Your task to perform on an android device: Show the shopping cart on costco. Add "bose soundsport free" to the cart on costco Image 0: 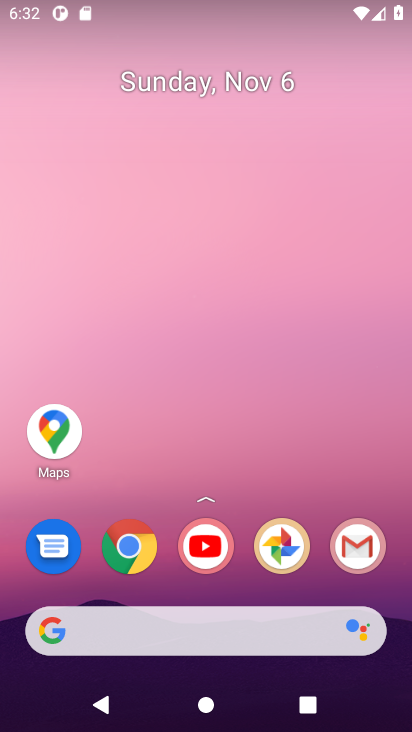
Step 0: click (140, 553)
Your task to perform on an android device: Show the shopping cart on costco. Add "bose soundsport free" to the cart on costco Image 1: 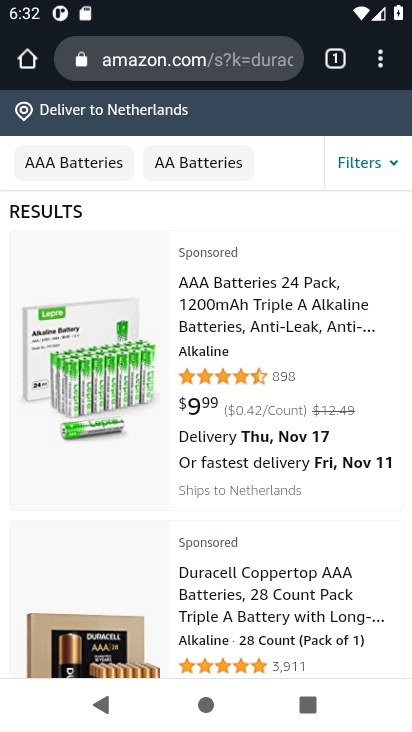
Step 1: click (167, 59)
Your task to perform on an android device: Show the shopping cart on costco. Add "bose soundsport free" to the cart on costco Image 2: 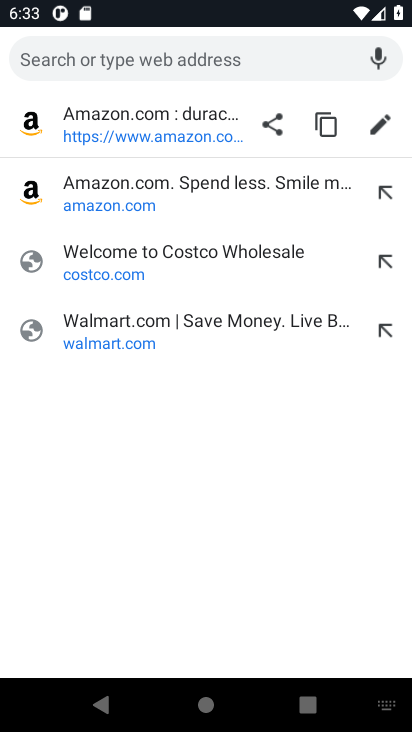
Step 2: click (97, 277)
Your task to perform on an android device: Show the shopping cart on costco. Add "bose soundsport free" to the cart on costco Image 3: 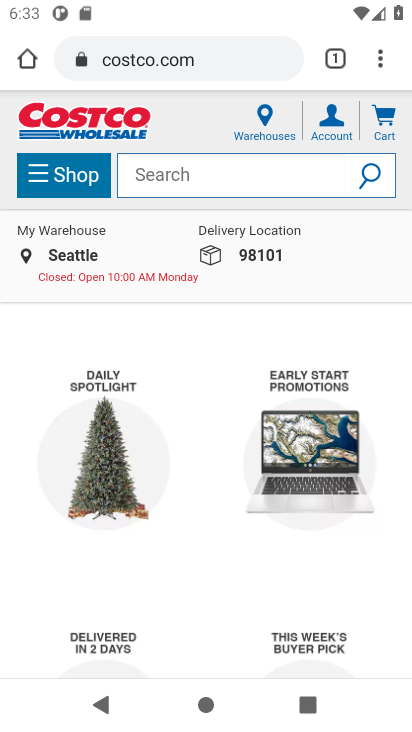
Step 3: click (384, 123)
Your task to perform on an android device: Show the shopping cart on costco. Add "bose soundsport free" to the cart on costco Image 4: 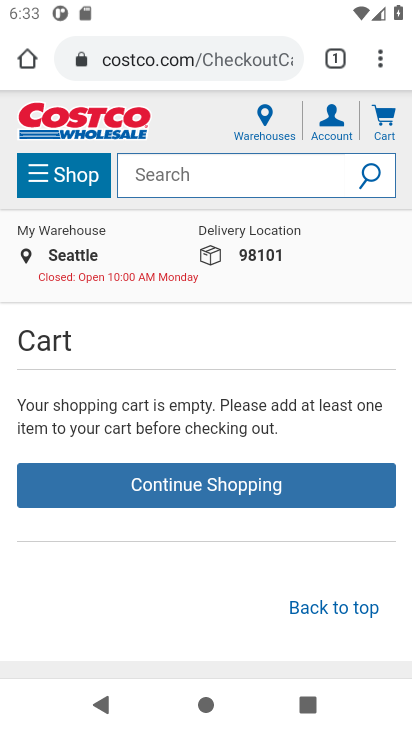
Step 4: click (158, 176)
Your task to perform on an android device: Show the shopping cart on costco. Add "bose soundsport free" to the cart on costco Image 5: 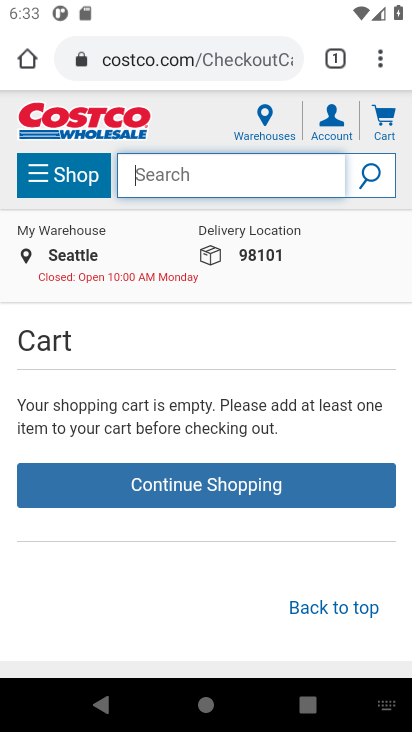
Step 5: type "bose soundsport free"
Your task to perform on an android device: Show the shopping cart on costco. Add "bose soundsport free" to the cart on costco Image 6: 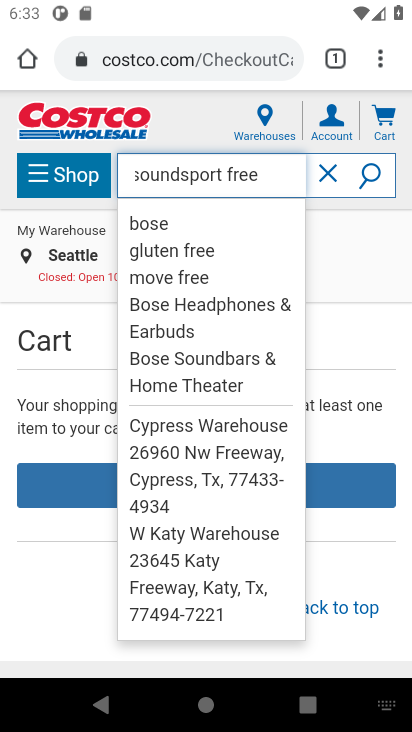
Step 6: click (371, 184)
Your task to perform on an android device: Show the shopping cart on costco. Add "bose soundsport free" to the cart on costco Image 7: 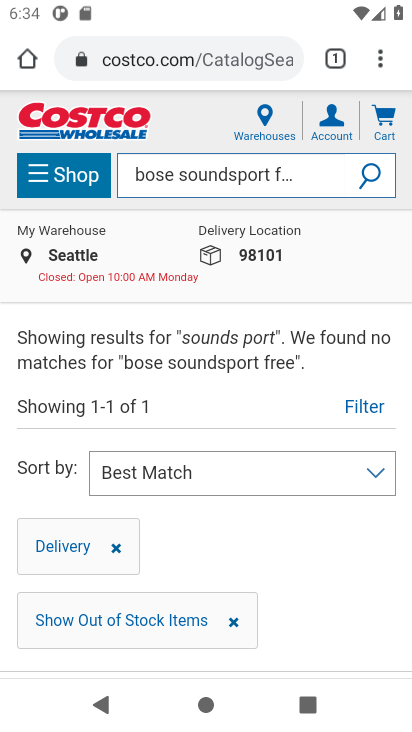
Step 7: task complete